Your task to perform on an android device: delete browsing data in the chrome app Image 0: 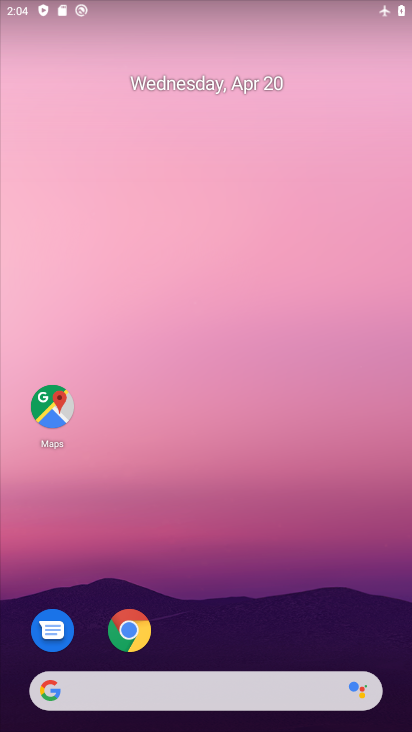
Step 0: drag from (327, 578) to (271, 181)
Your task to perform on an android device: delete browsing data in the chrome app Image 1: 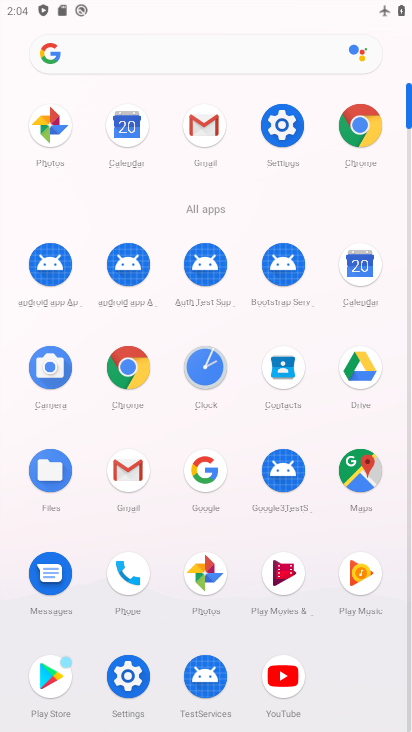
Step 1: click (355, 123)
Your task to perform on an android device: delete browsing data in the chrome app Image 2: 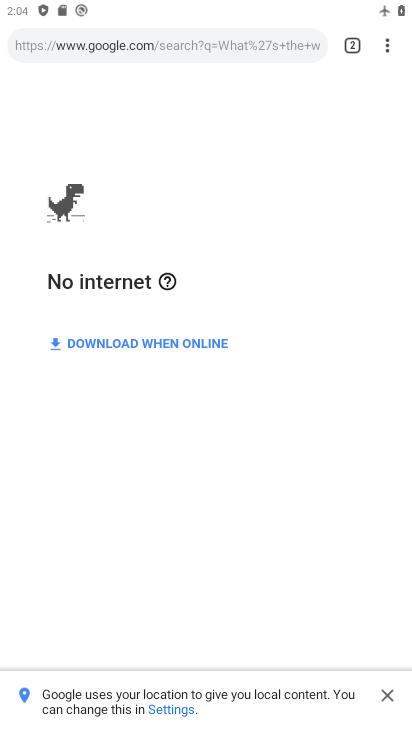
Step 2: click (392, 37)
Your task to perform on an android device: delete browsing data in the chrome app Image 3: 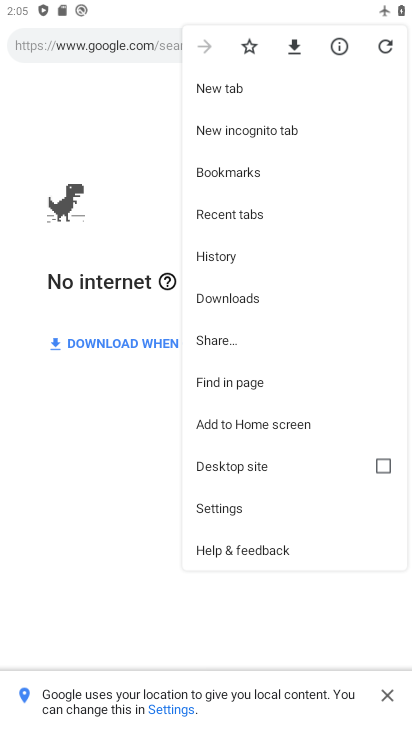
Step 3: click (256, 260)
Your task to perform on an android device: delete browsing data in the chrome app Image 4: 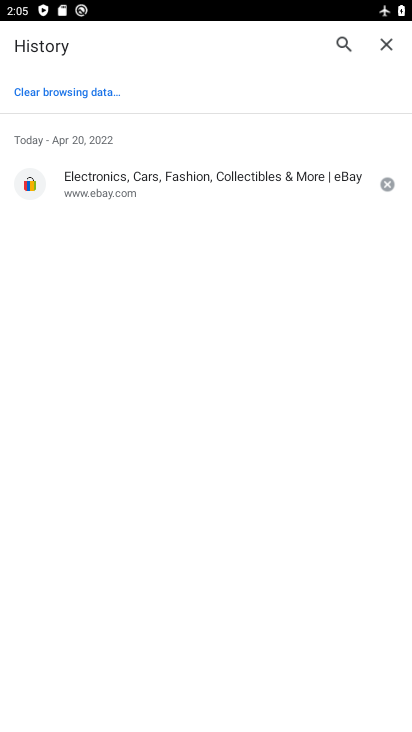
Step 4: click (81, 95)
Your task to perform on an android device: delete browsing data in the chrome app Image 5: 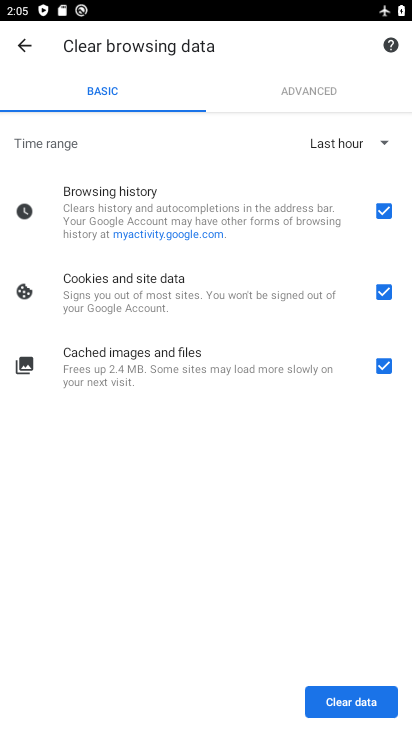
Step 5: click (358, 703)
Your task to perform on an android device: delete browsing data in the chrome app Image 6: 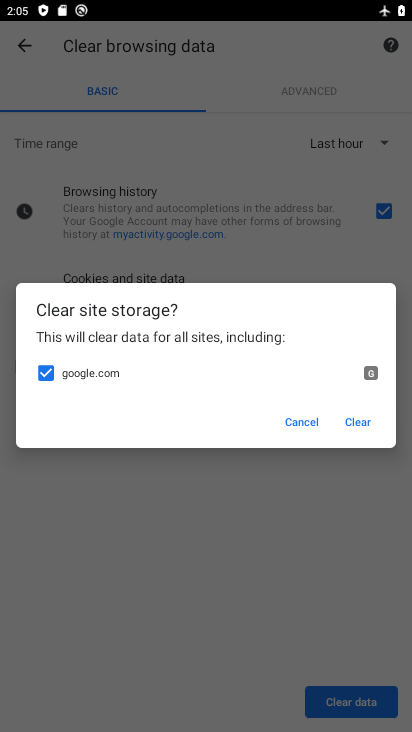
Step 6: click (369, 416)
Your task to perform on an android device: delete browsing data in the chrome app Image 7: 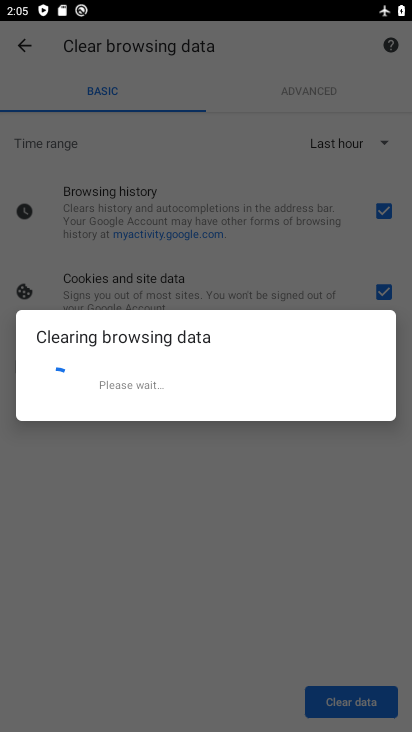
Step 7: task complete